Your task to perform on an android device: Go to internet settings Image 0: 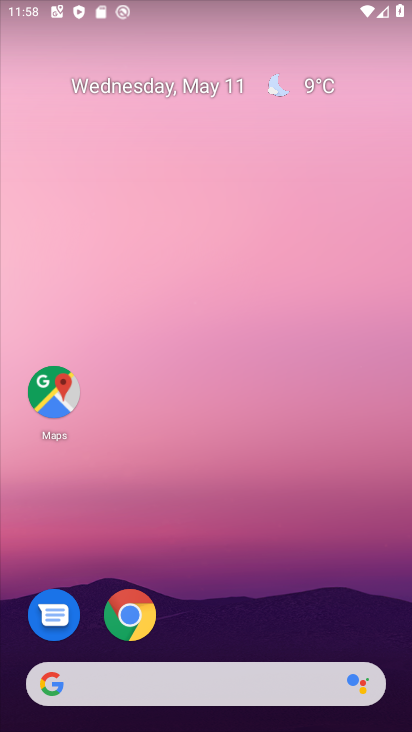
Step 0: drag from (290, 590) to (264, 222)
Your task to perform on an android device: Go to internet settings Image 1: 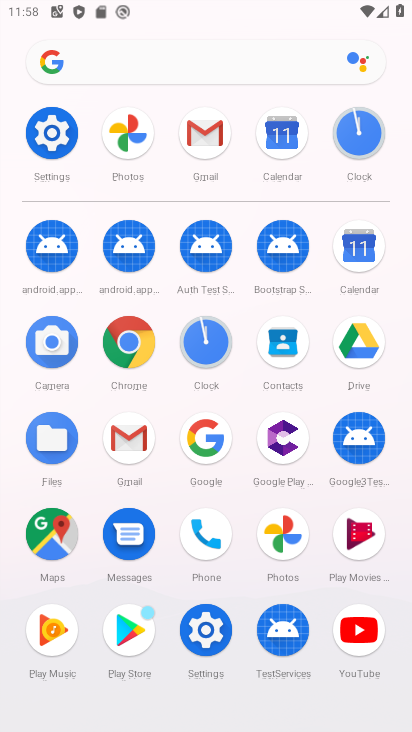
Step 1: click (65, 136)
Your task to perform on an android device: Go to internet settings Image 2: 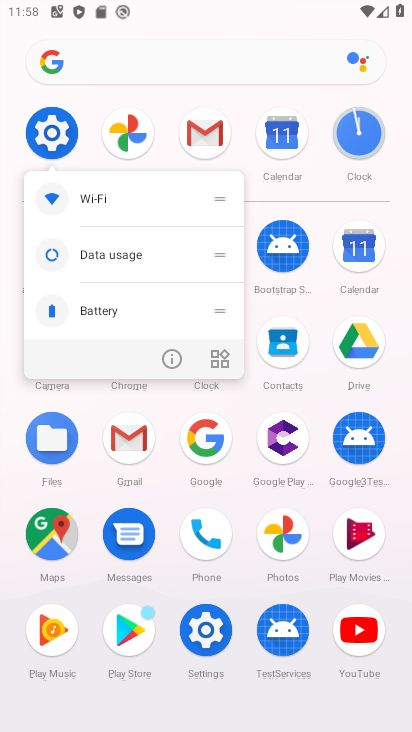
Step 2: click (66, 131)
Your task to perform on an android device: Go to internet settings Image 3: 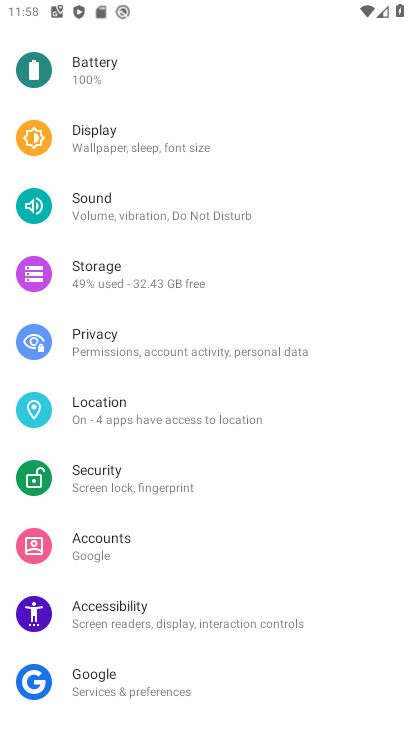
Step 3: drag from (113, 118) to (180, 512)
Your task to perform on an android device: Go to internet settings Image 4: 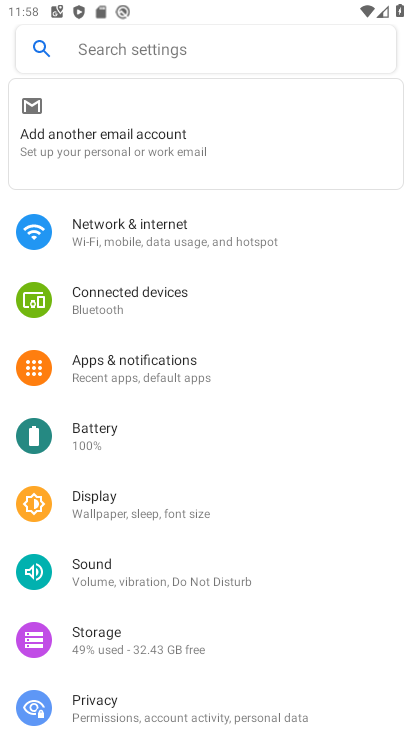
Step 4: click (189, 224)
Your task to perform on an android device: Go to internet settings Image 5: 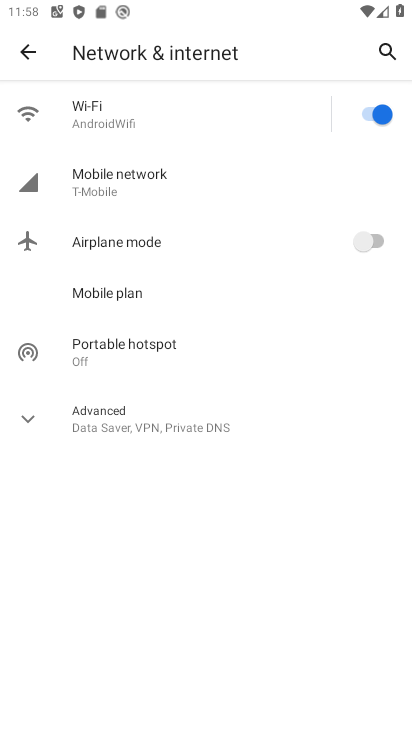
Step 5: task complete